Your task to perform on an android device: move a message to another label in the gmail app Image 0: 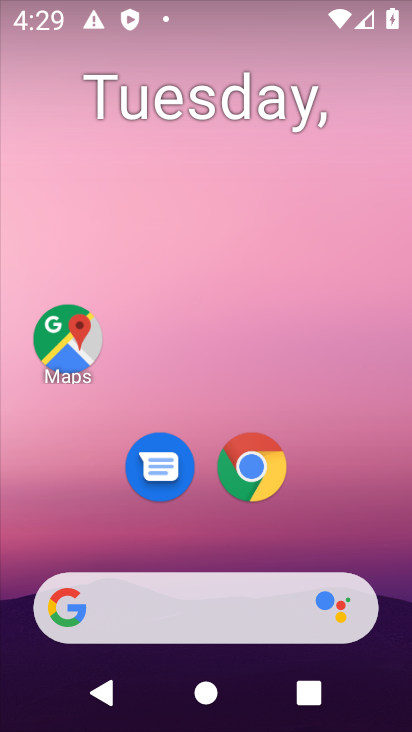
Step 0: drag from (287, 648) to (286, 27)
Your task to perform on an android device: move a message to another label in the gmail app Image 1: 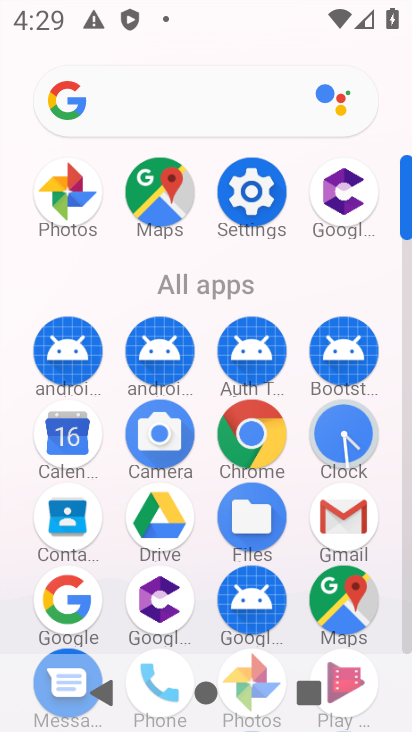
Step 1: click (346, 518)
Your task to perform on an android device: move a message to another label in the gmail app Image 2: 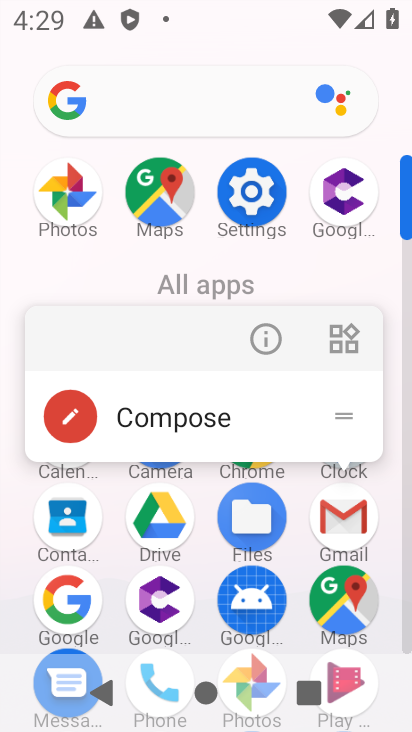
Step 2: click (346, 518)
Your task to perform on an android device: move a message to another label in the gmail app Image 3: 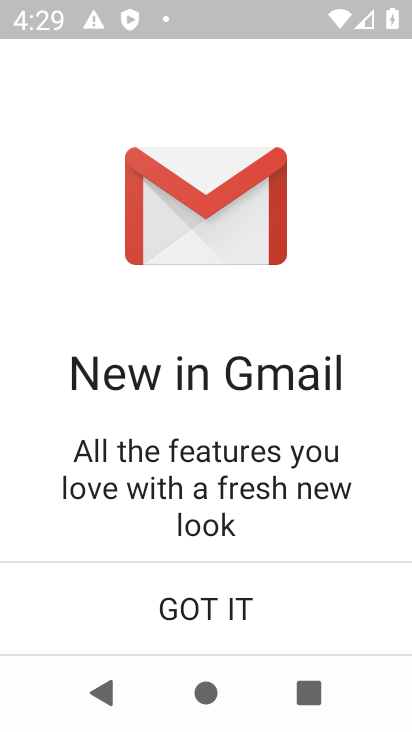
Step 3: click (256, 607)
Your task to perform on an android device: move a message to another label in the gmail app Image 4: 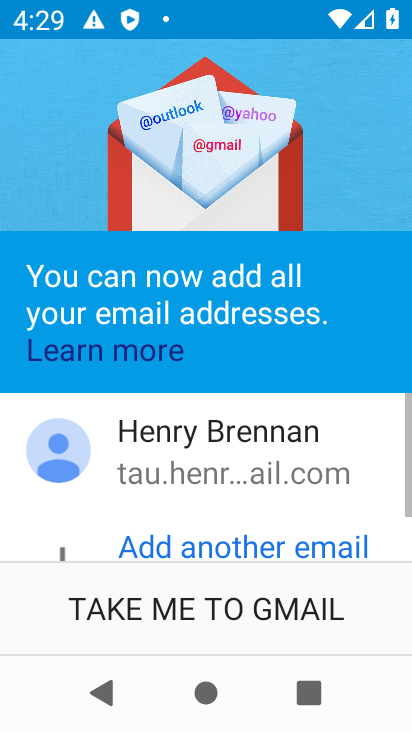
Step 4: click (256, 605)
Your task to perform on an android device: move a message to another label in the gmail app Image 5: 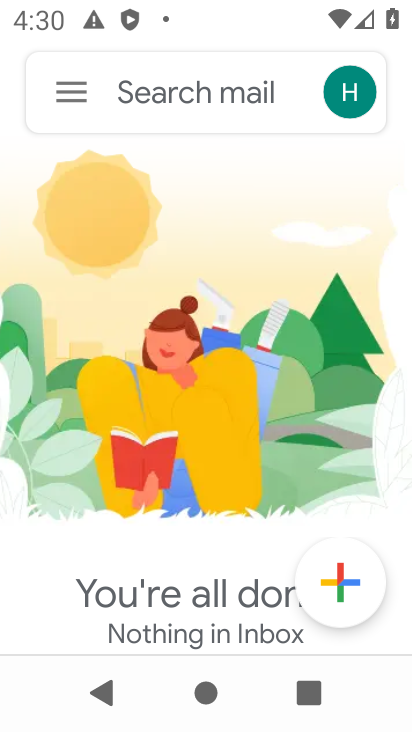
Step 5: drag from (185, 604) to (204, 291)
Your task to perform on an android device: move a message to another label in the gmail app Image 6: 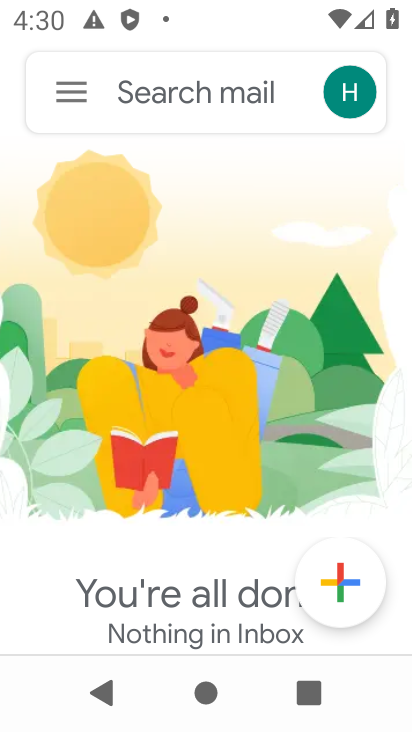
Step 6: click (76, 107)
Your task to perform on an android device: move a message to another label in the gmail app Image 7: 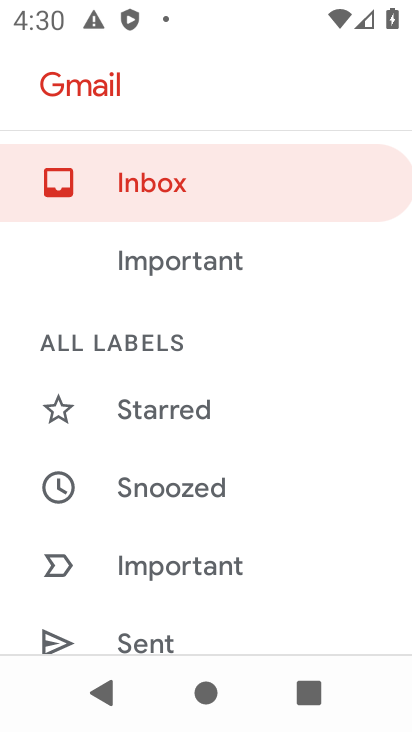
Step 7: click (129, 185)
Your task to perform on an android device: move a message to another label in the gmail app Image 8: 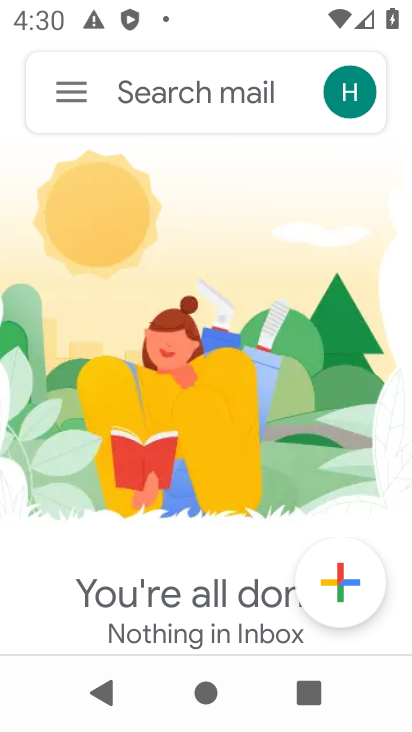
Step 8: task complete